Your task to perform on an android device: toggle javascript in the chrome app Image 0: 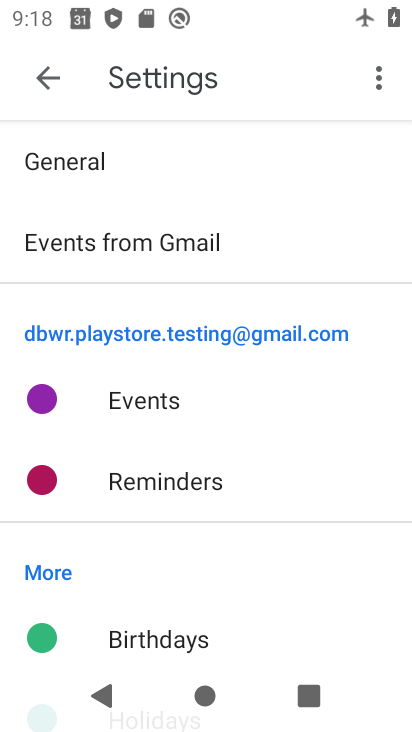
Step 0: drag from (198, 483) to (304, 23)
Your task to perform on an android device: toggle javascript in the chrome app Image 1: 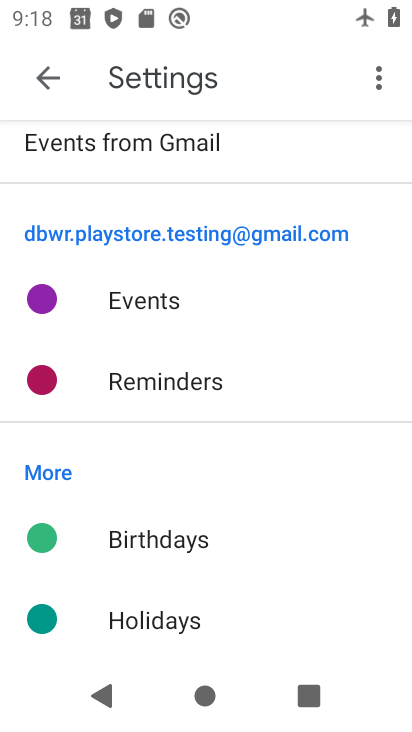
Step 1: click (58, 77)
Your task to perform on an android device: toggle javascript in the chrome app Image 2: 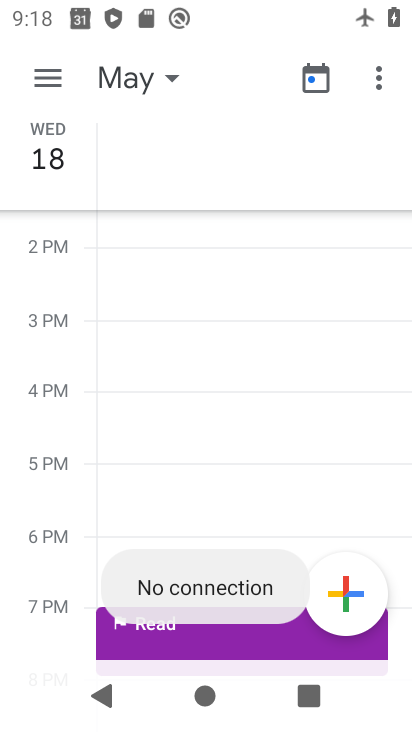
Step 2: press home button
Your task to perform on an android device: toggle javascript in the chrome app Image 3: 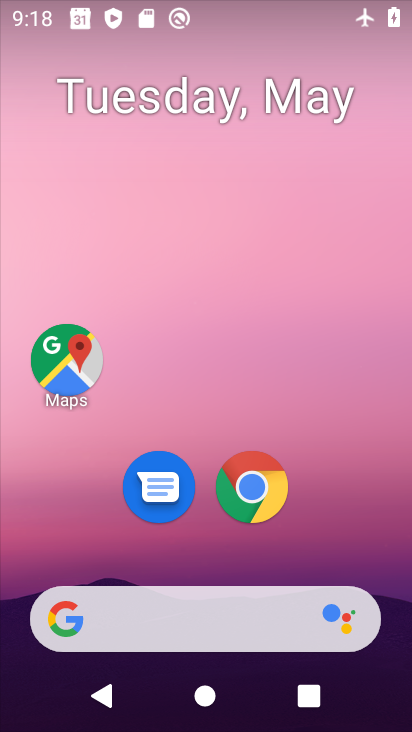
Step 3: drag from (180, 592) to (245, 87)
Your task to perform on an android device: toggle javascript in the chrome app Image 4: 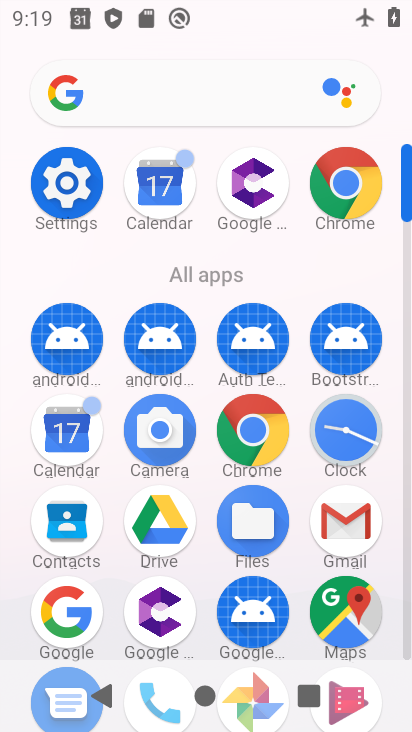
Step 4: click (339, 197)
Your task to perform on an android device: toggle javascript in the chrome app Image 5: 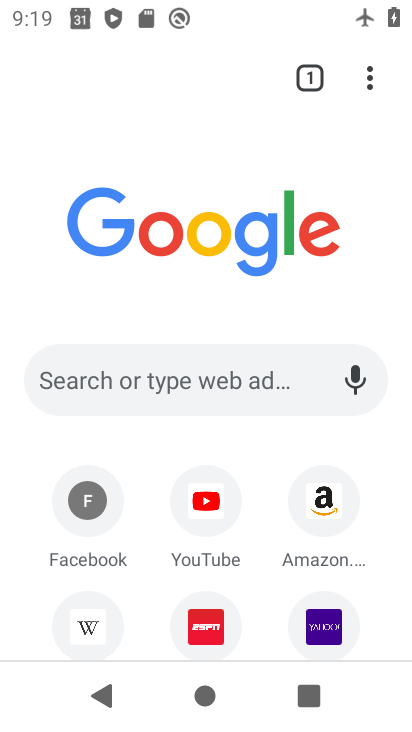
Step 5: click (368, 87)
Your task to perform on an android device: toggle javascript in the chrome app Image 6: 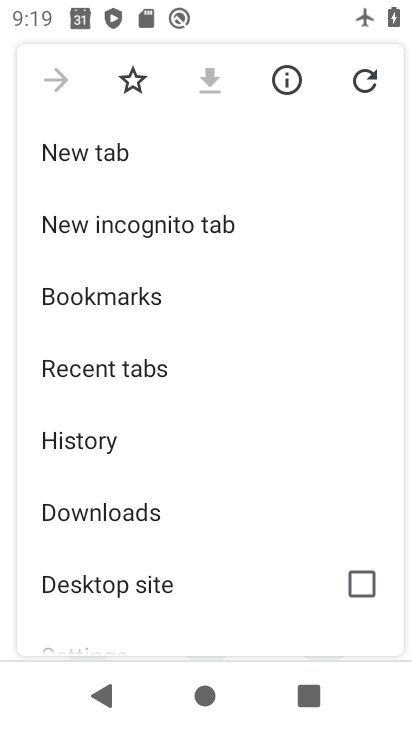
Step 6: drag from (222, 482) to (257, 239)
Your task to perform on an android device: toggle javascript in the chrome app Image 7: 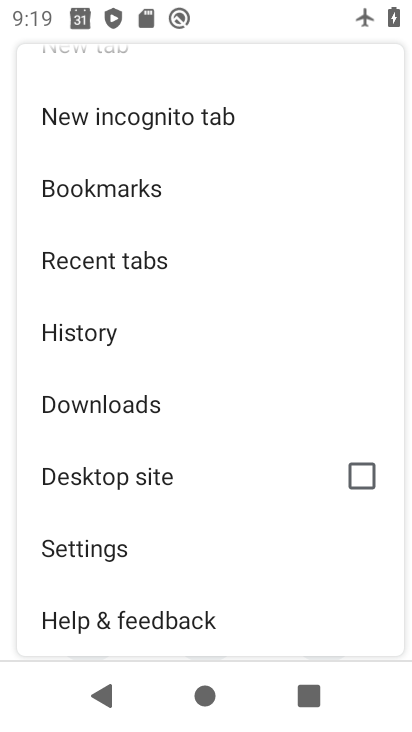
Step 7: click (106, 536)
Your task to perform on an android device: toggle javascript in the chrome app Image 8: 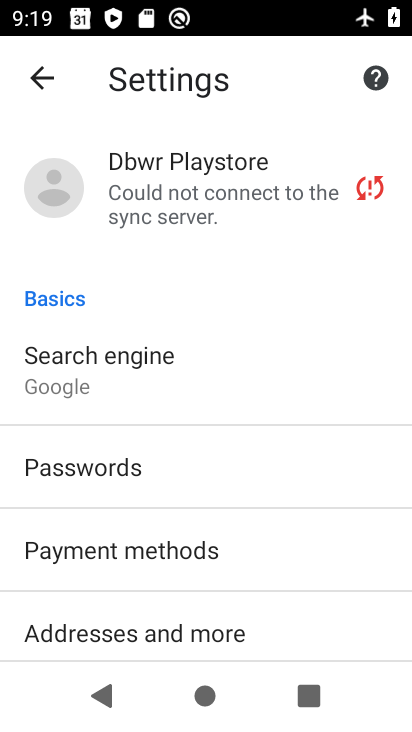
Step 8: drag from (192, 575) to (331, 0)
Your task to perform on an android device: toggle javascript in the chrome app Image 9: 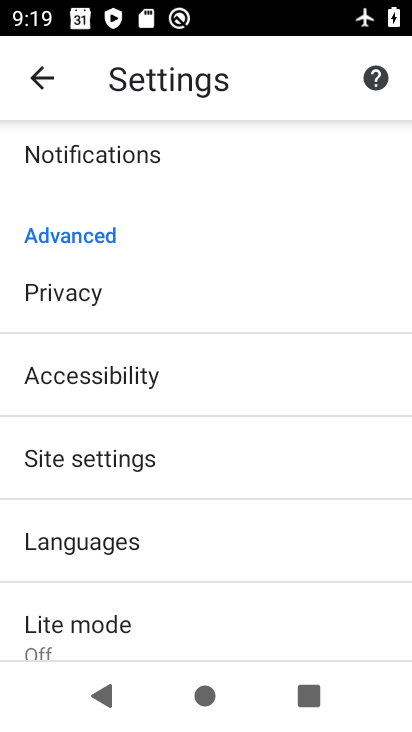
Step 9: click (138, 463)
Your task to perform on an android device: toggle javascript in the chrome app Image 10: 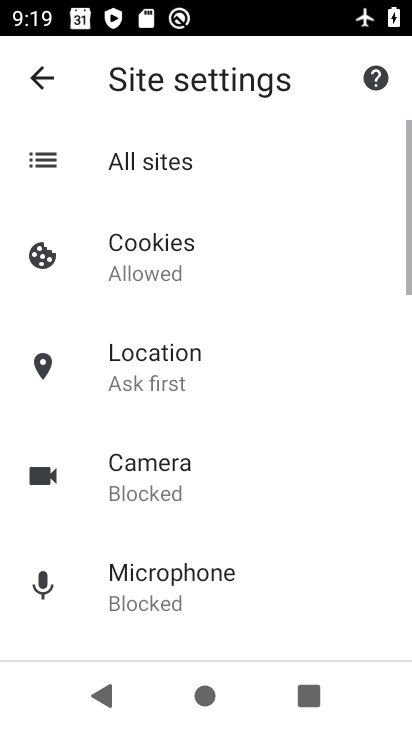
Step 10: drag from (289, 547) to (356, 71)
Your task to perform on an android device: toggle javascript in the chrome app Image 11: 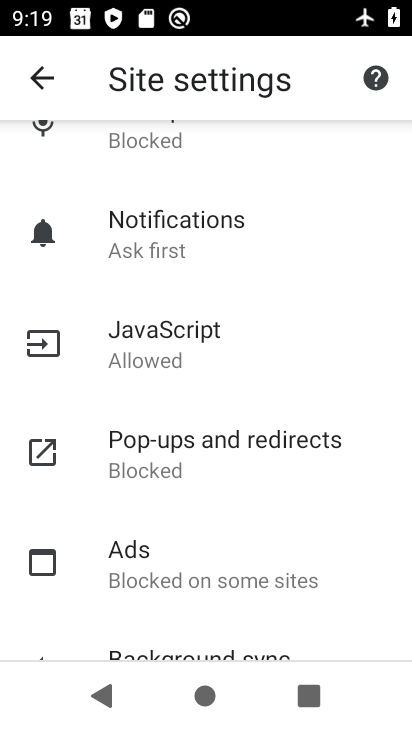
Step 11: click (237, 358)
Your task to perform on an android device: toggle javascript in the chrome app Image 12: 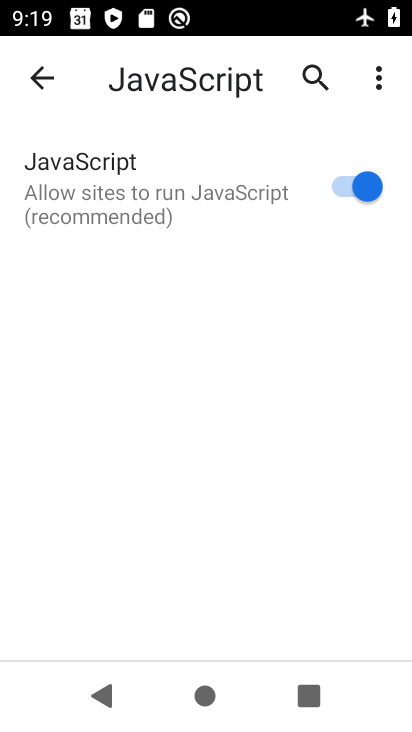
Step 12: click (344, 180)
Your task to perform on an android device: toggle javascript in the chrome app Image 13: 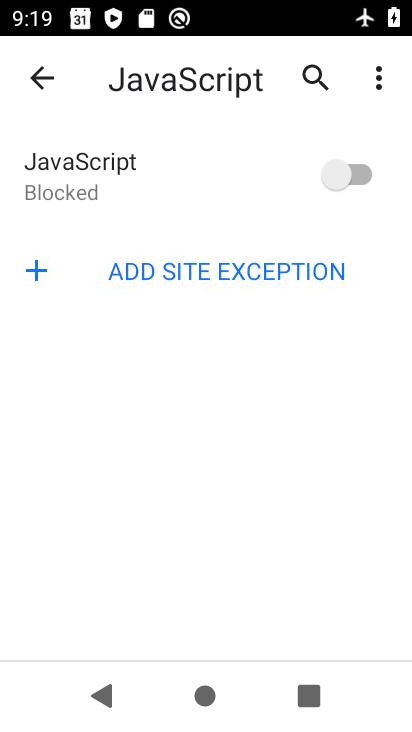
Step 13: task complete